Your task to perform on an android device: Open Chrome and go to settings Image 0: 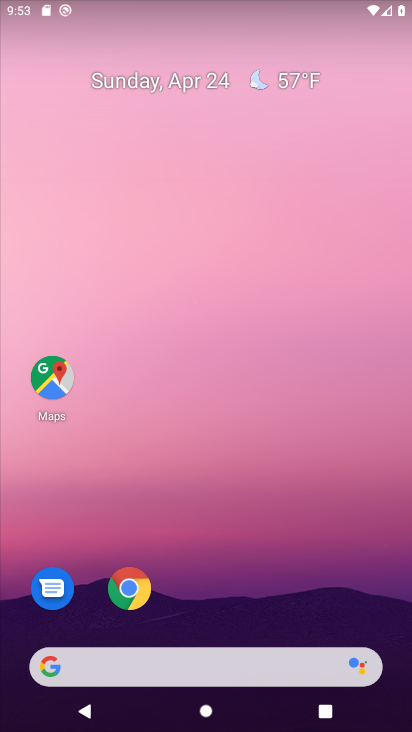
Step 0: click (129, 587)
Your task to perform on an android device: Open Chrome and go to settings Image 1: 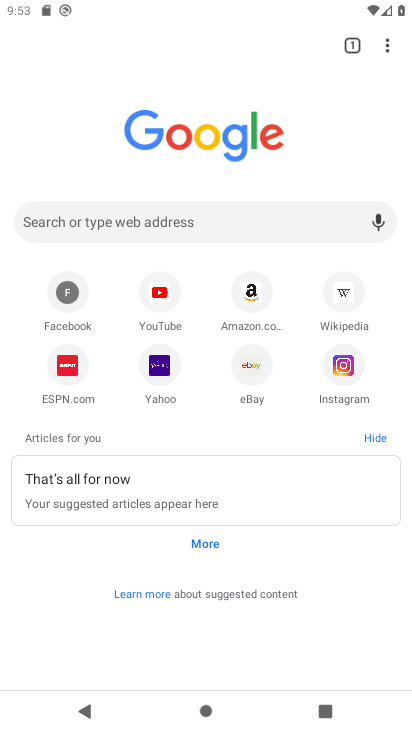
Step 1: click (394, 47)
Your task to perform on an android device: Open Chrome and go to settings Image 2: 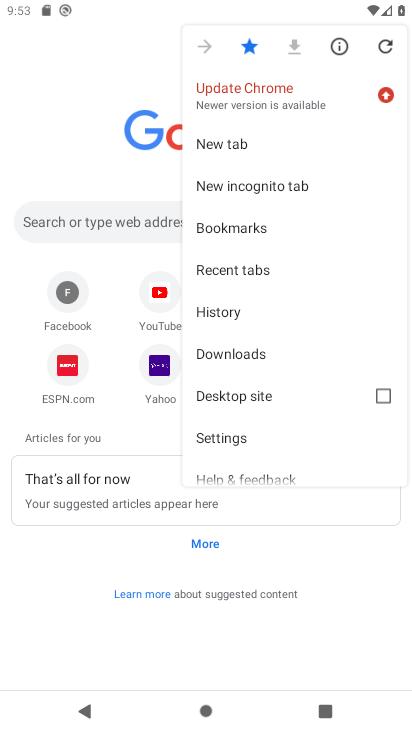
Step 2: click (242, 434)
Your task to perform on an android device: Open Chrome and go to settings Image 3: 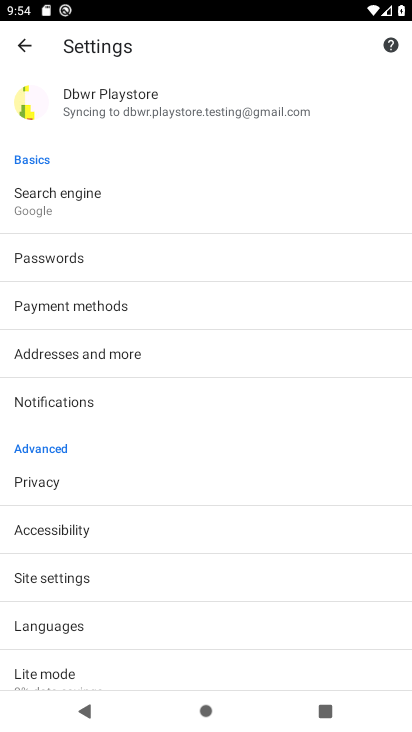
Step 3: task complete